Your task to perform on an android device: find which apps use the phone's location Image 0: 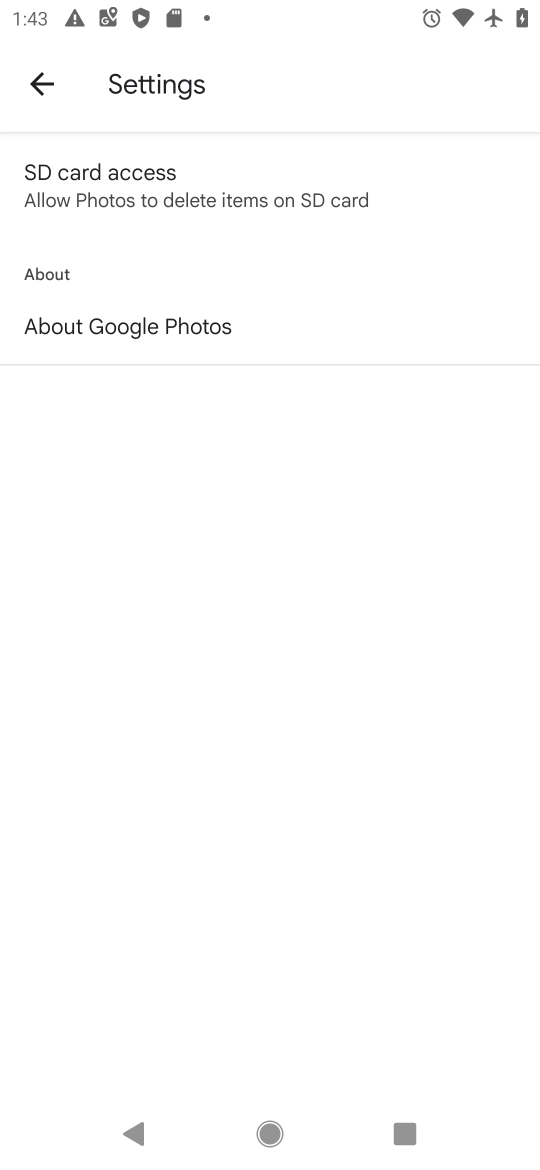
Step 0: click (57, 94)
Your task to perform on an android device: find which apps use the phone's location Image 1: 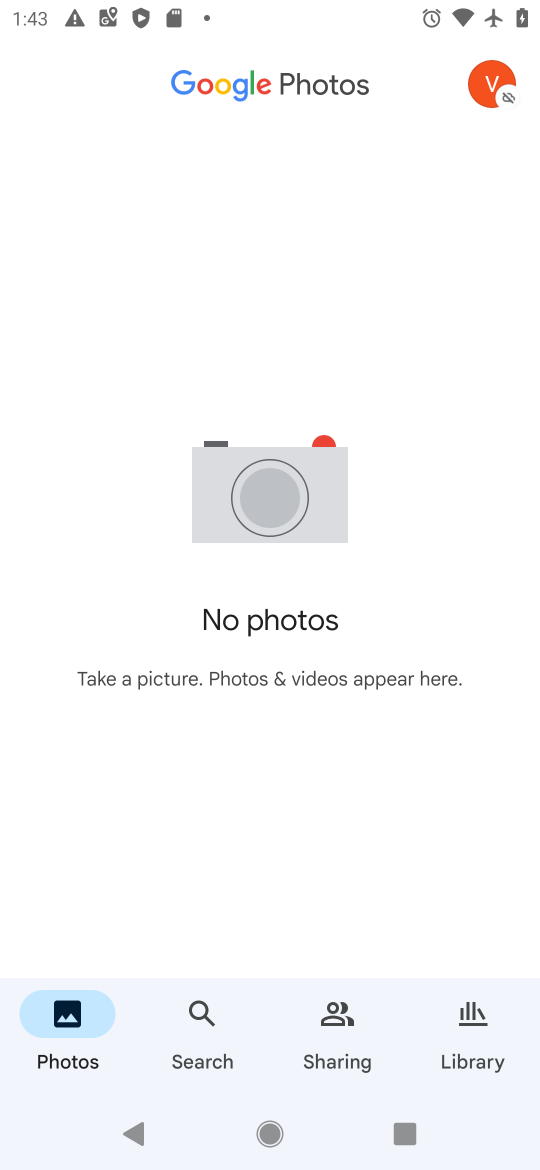
Step 1: task complete